Your task to perform on an android device: What's the weather today? Image 0: 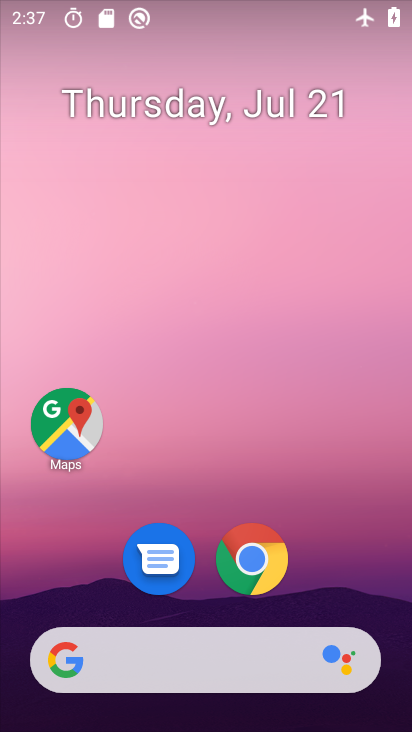
Step 0: click (216, 654)
Your task to perform on an android device: What's the weather today? Image 1: 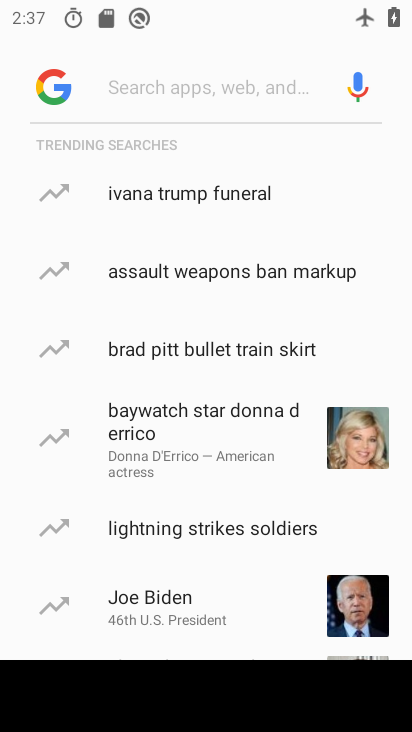
Step 1: type "weather "
Your task to perform on an android device: What's the weather today? Image 2: 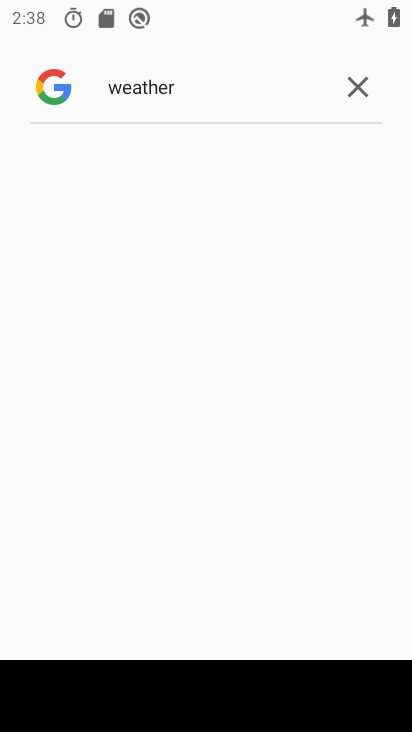
Step 2: task complete